Your task to perform on an android device: Open accessibility settings Image 0: 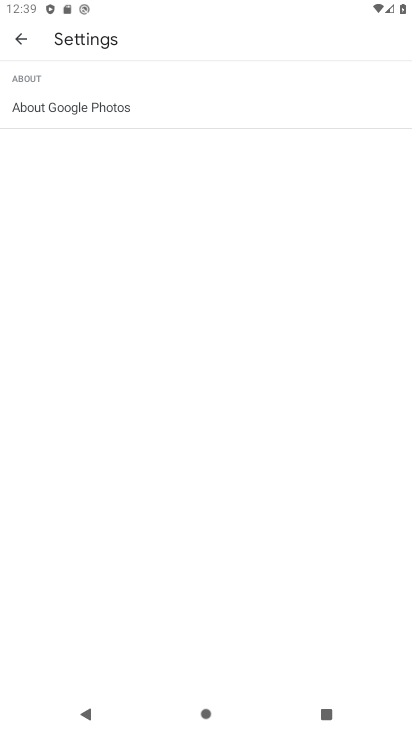
Step 0: press home button
Your task to perform on an android device: Open accessibility settings Image 1: 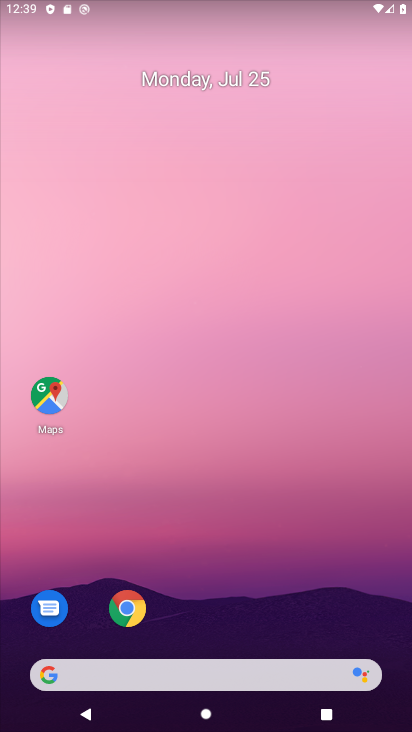
Step 1: drag from (197, 663) to (127, 58)
Your task to perform on an android device: Open accessibility settings Image 2: 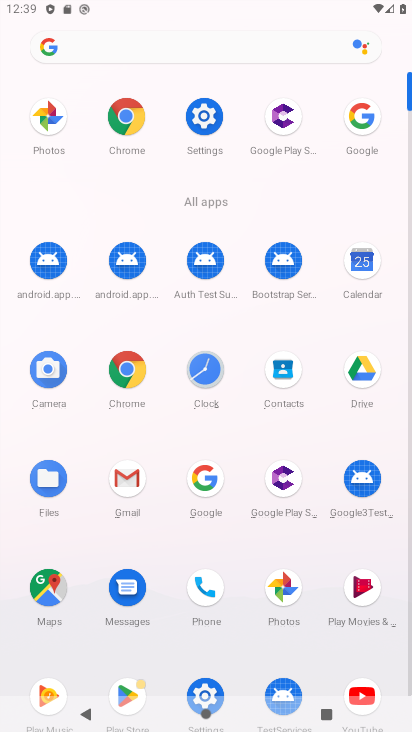
Step 2: click (183, 117)
Your task to perform on an android device: Open accessibility settings Image 3: 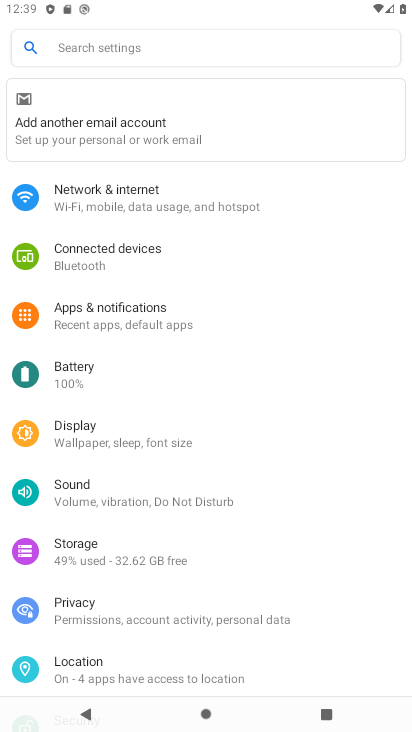
Step 3: drag from (163, 579) to (94, 134)
Your task to perform on an android device: Open accessibility settings Image 4: 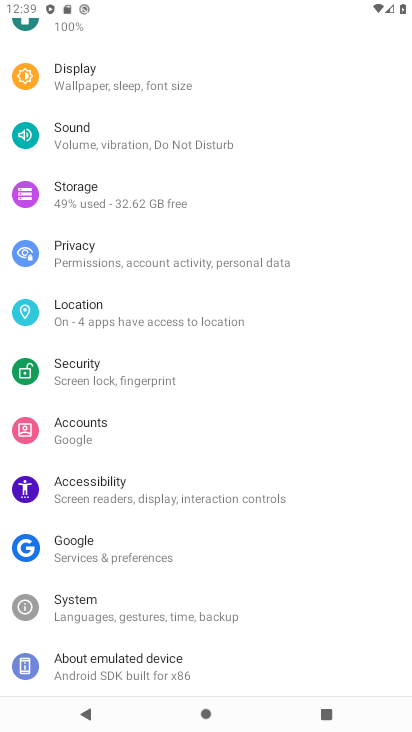
Step 4: drag from (147, 492) to (135, 138)
Your task to perform on an android device: Open accessibility settings Image 5: 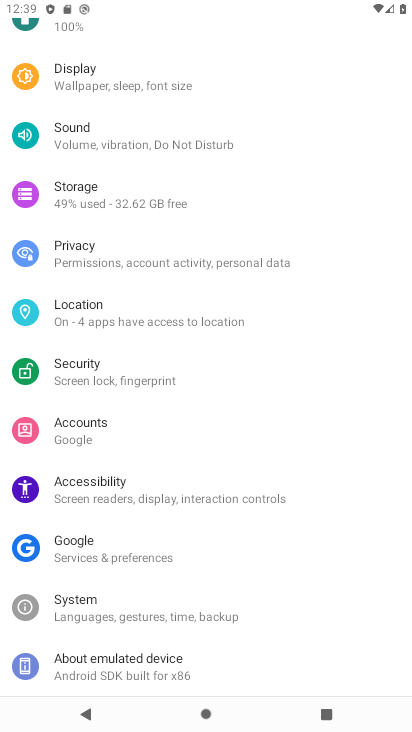
Step 5: click (97, 479)
Your task to perform on an android device: Open accessibility settings Image 6: 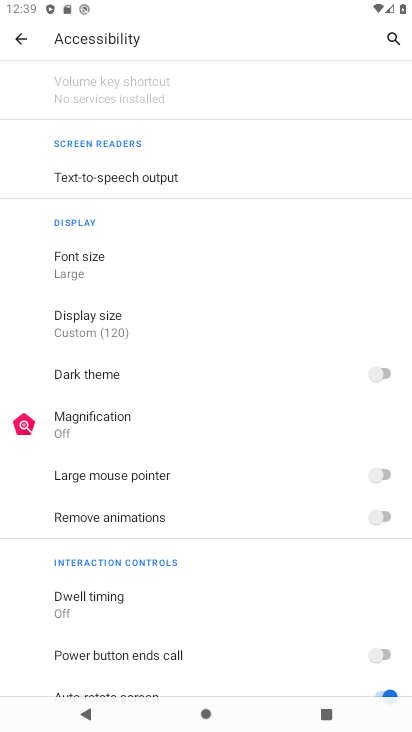
Step 6: task complete